Your task to perform on an android device: How big is a blue whale? Image 0: 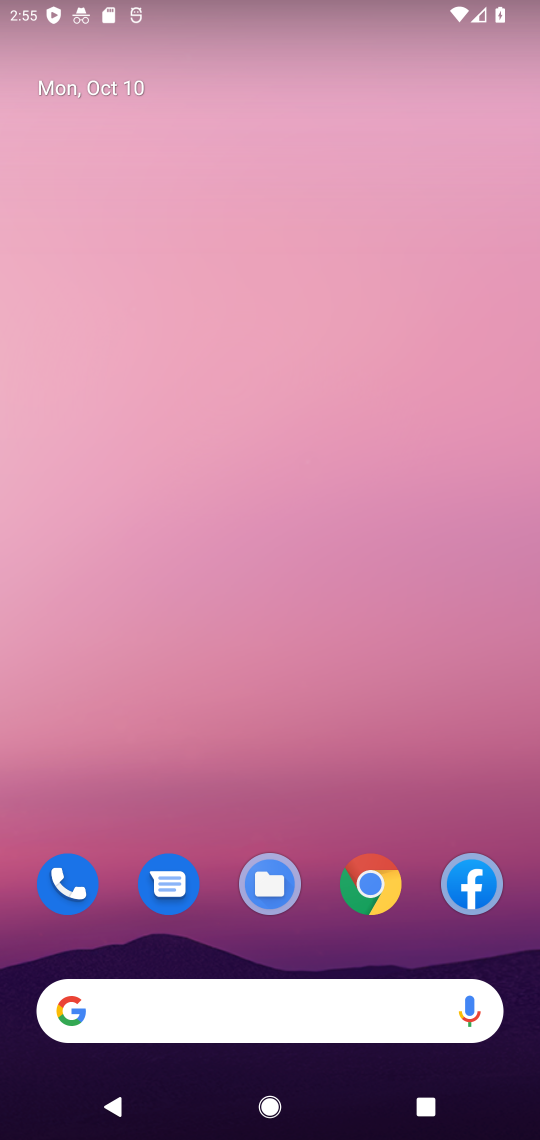
Step 0: click (276, 992)
Your task to perform on an android device: How big is a blue whale? Image 1: 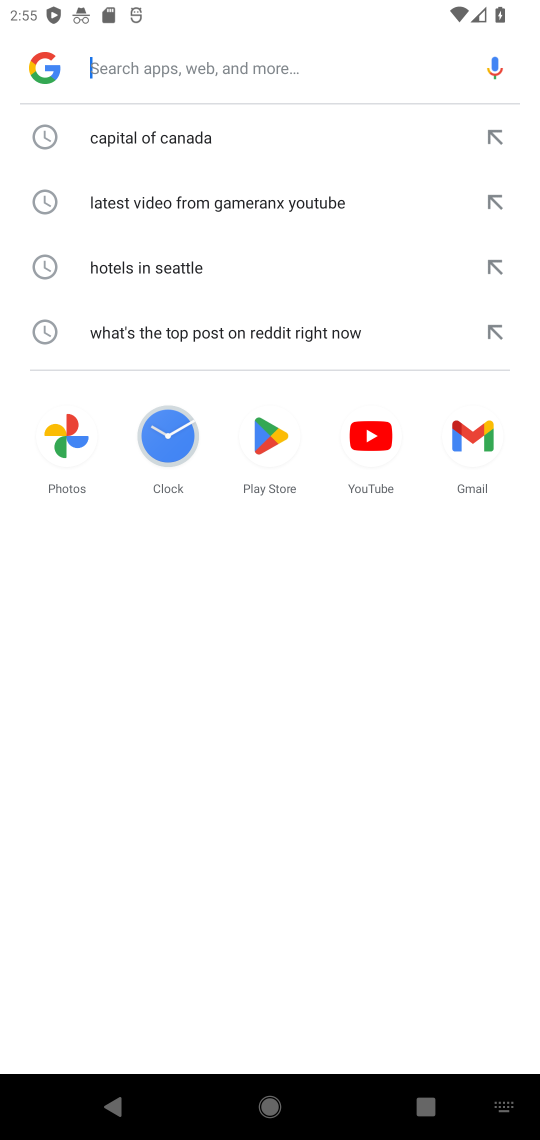
Step 1: type "How big is a blue whale"
Your task to perform on an android device: How big is a blue whale? Image 2: 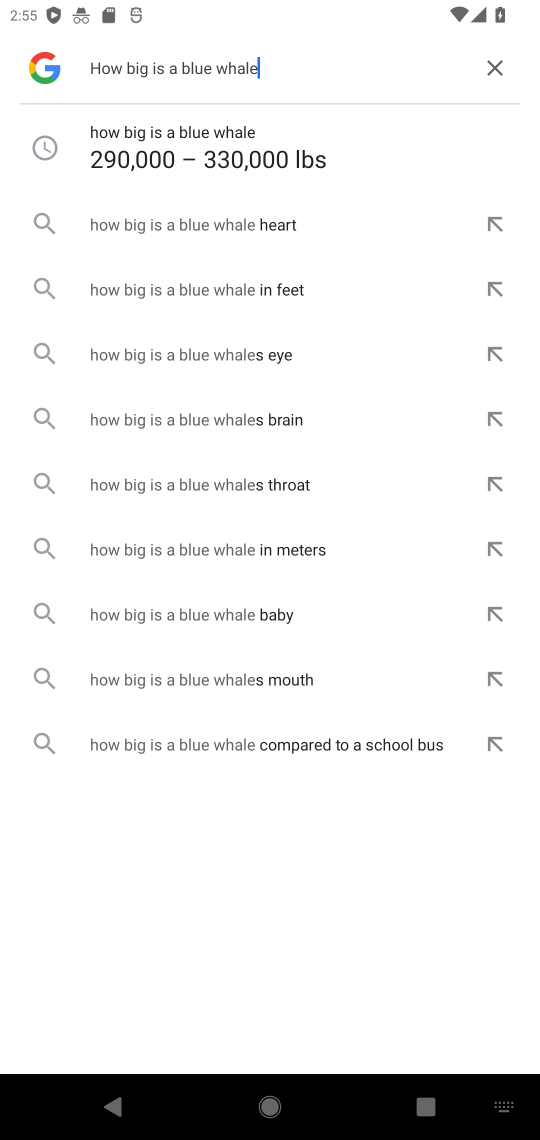
Step 2: click (225, 140)
Your task to perform on an android device: How big is a blue whale? Image 3: 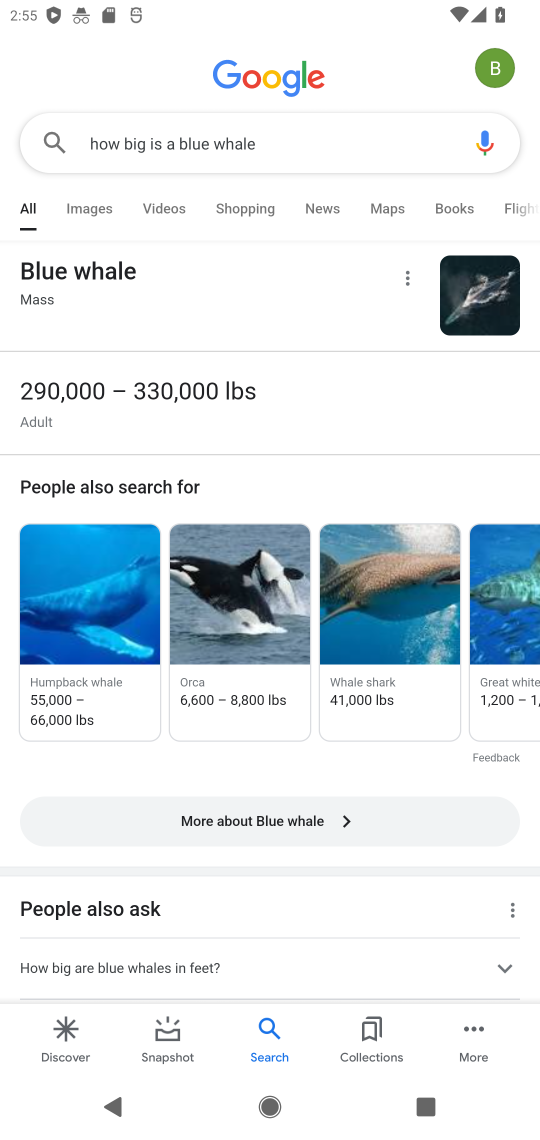
Step 3: task complete